Your task to perform on an android device: star an email in the gmail app Image 0: 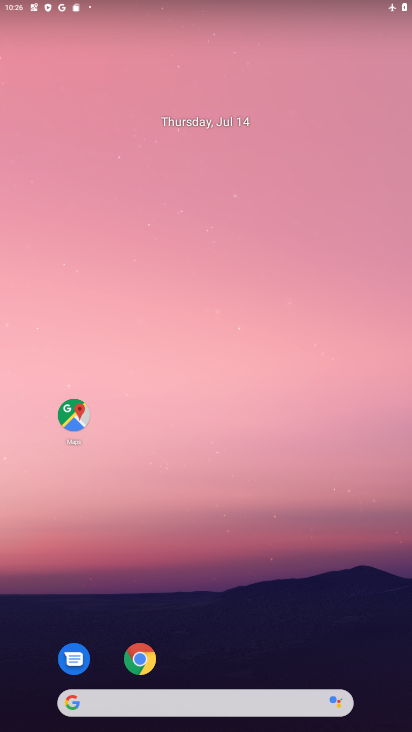
Step 0: drag from (306, 570) to (302, 78)
Your task to perform on an android device: star an email in the gmail app Image 1: 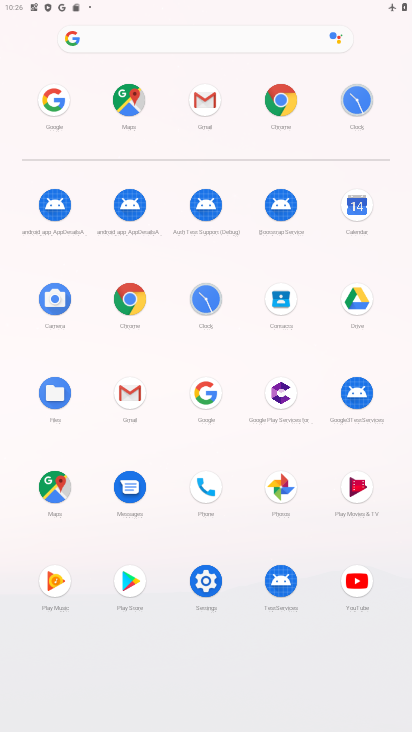
Step 1: click (134, 391)
Your task to perform on an android device: star an email in the gmail app Image 2: 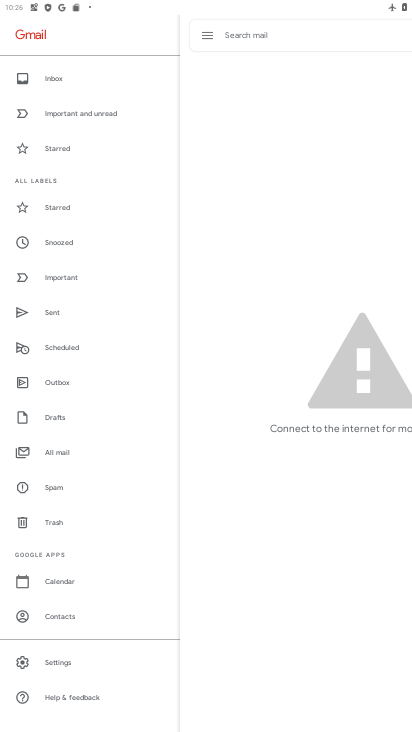
Step 2: click (63, 450)
Your task to perform on an android device: star an email in the gmail app Image 3: 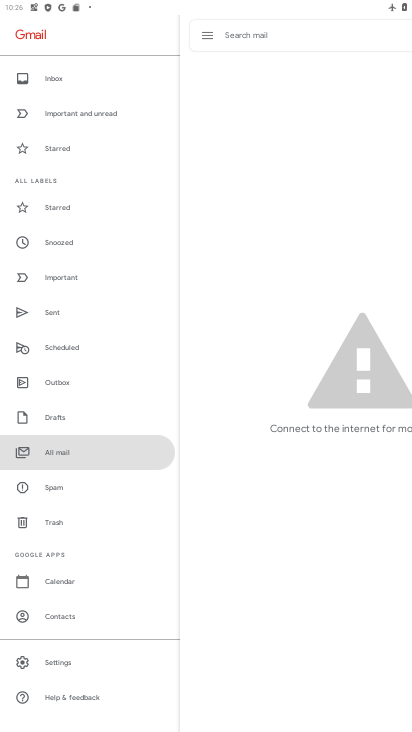
Step 3: task complete